Your task to perform on an android device: set the stopwatch Image 0: 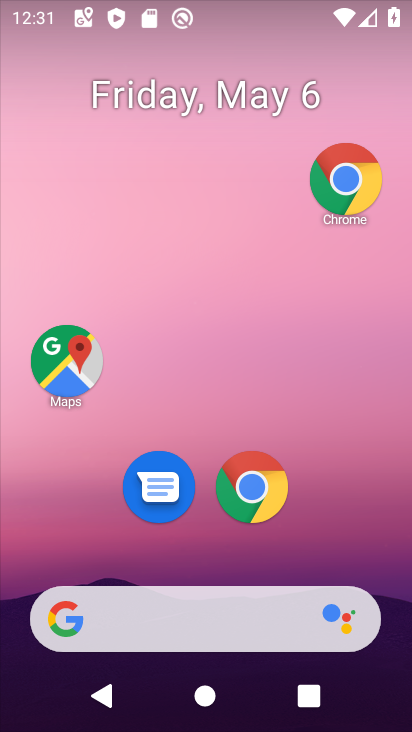
Step 0: drag from (315, 565) to (263, 111)
Your task to perform on an android device: set the stopwatch Image 1: 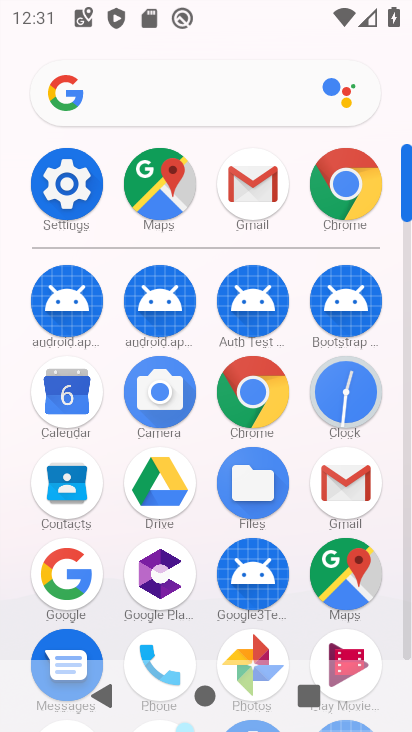
Step 1: click (350, 404)
Your task to perform on an android device: set the stopwatch Image 2: 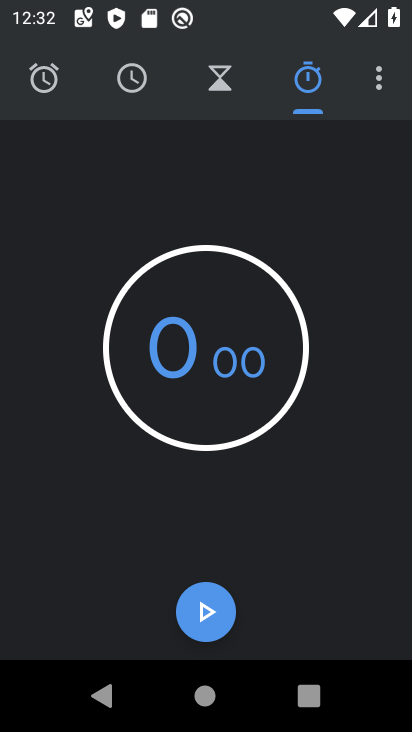
Step 2: task complete